Your task to perform on an android device: turn on bluetooth scan Image 0: 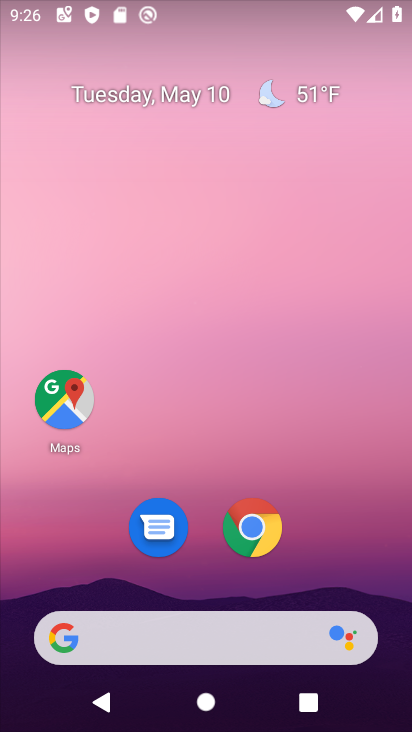
Step 0: drag from (229, 720) to (234, 176)
Your task to perform on an android device: turn on bluetooth scan Image 1: 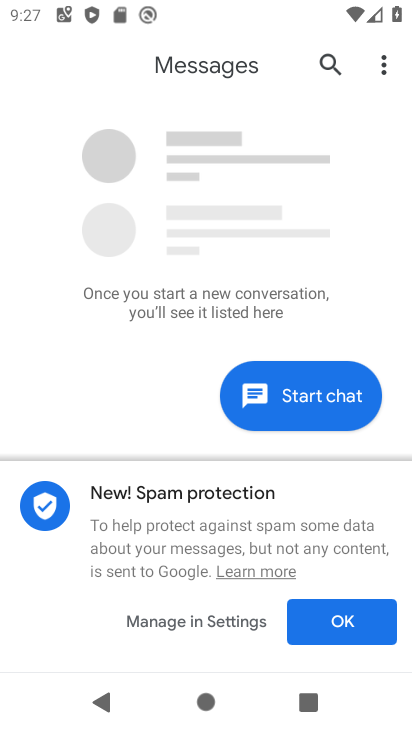
Step 1: press home button
Your task to perform on an android device: turn on bluetooth scan Image 2: 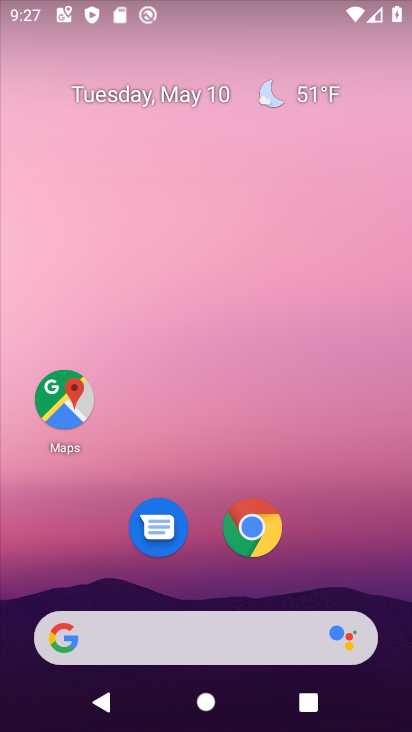
Step 2: drag from (232, 725) to (236, 212)
Your task to perform on an android device: turn on bluetooth scan Image 3: 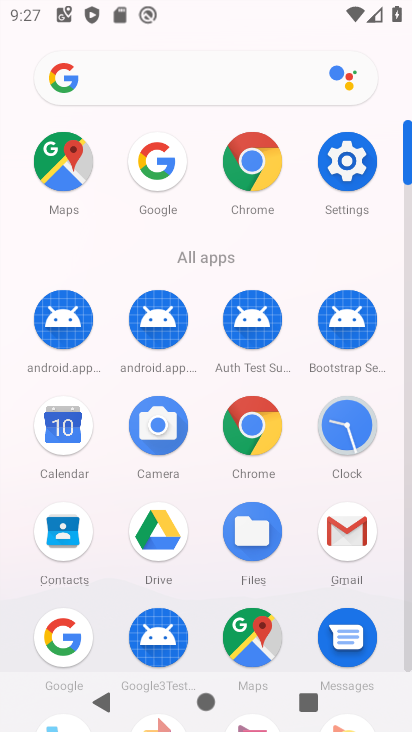
Step 3: click (354, 161)
Your task to perform on an android device: turn on bluetooth scan Image 4: 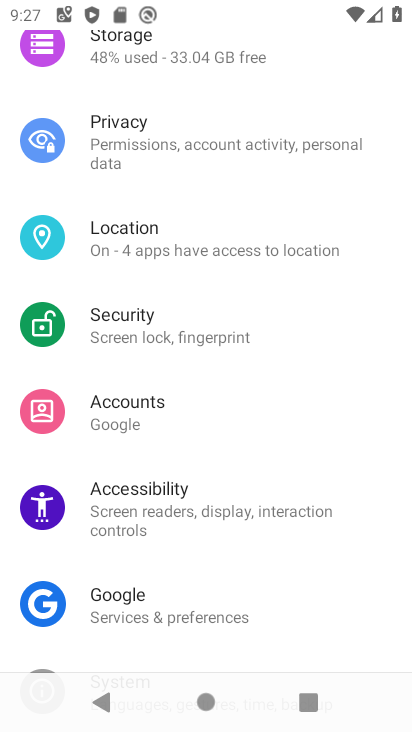
Step 4: click (106, 243)
Your task to perform on an android device: turn on bluetooth scan Image 5: 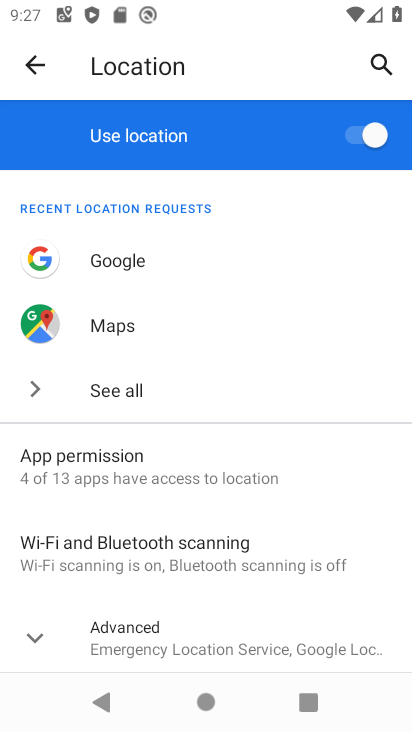
Step 5: click (149, 550)
Your task to perform on an android device: turn on bluetooth scan Image 6: 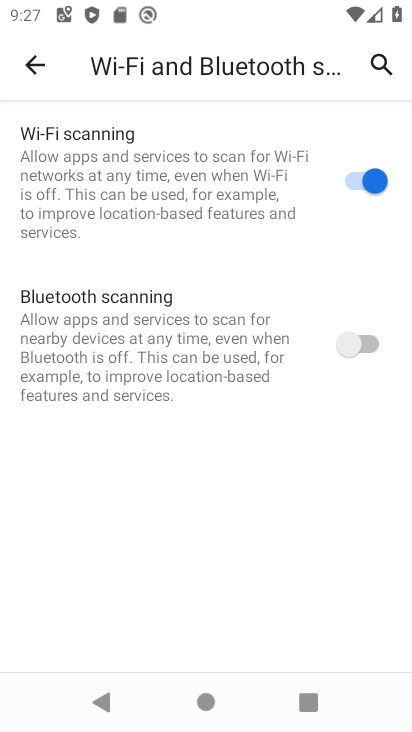
Step 6: click (368, 344)
Your task to perform on an android device: turn on bluetooth scan Image 7: 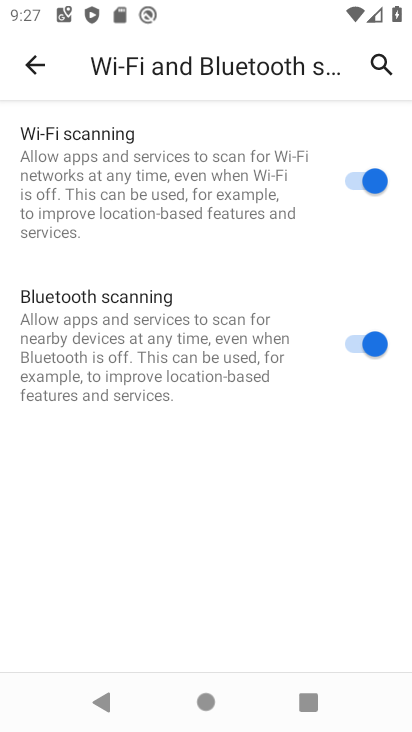
Step 7: task complete